Your task to perform on an android device: Check the news Image 0: 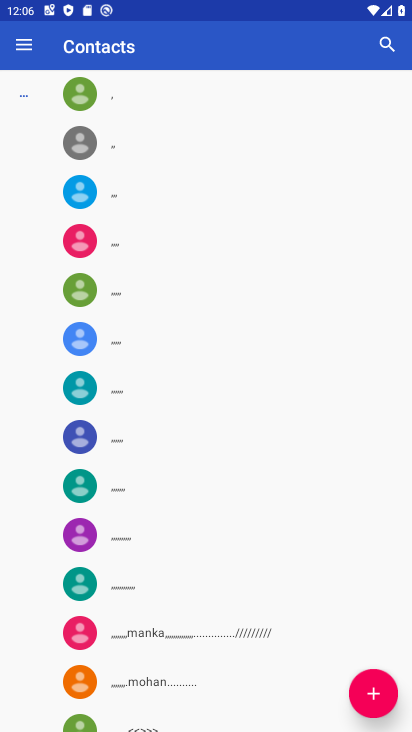
Step 0: press home button
Your task to perform on an android device: Check the news Image 1: 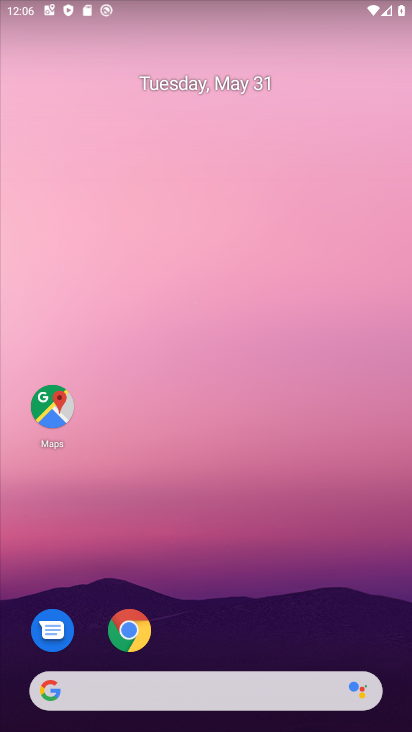
Step 1: click (54, 698)
Your task to perform on an android device: Check the news Image 2: 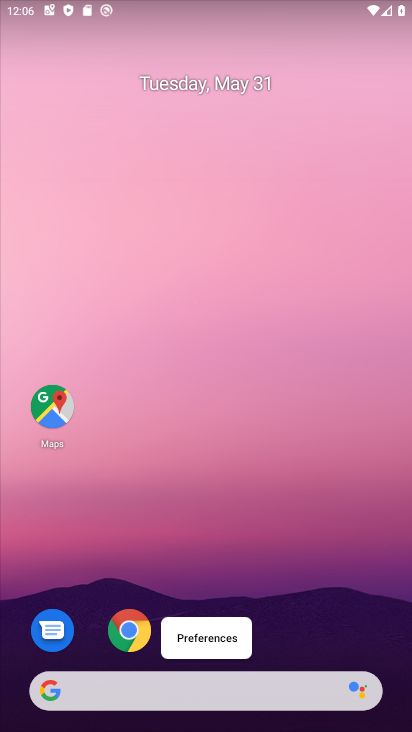
Step 2: click (54, 691)
Your task to perform on an android device: Check the news Image 3: 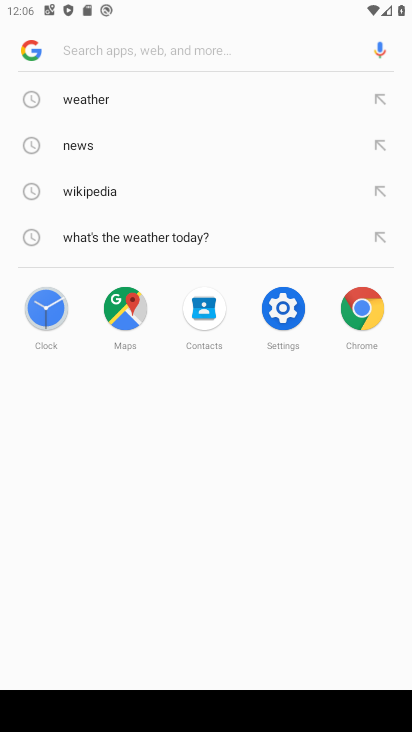
Step 3: click (81, 133)
Your task to perform on an android device: Check the news Image 4: 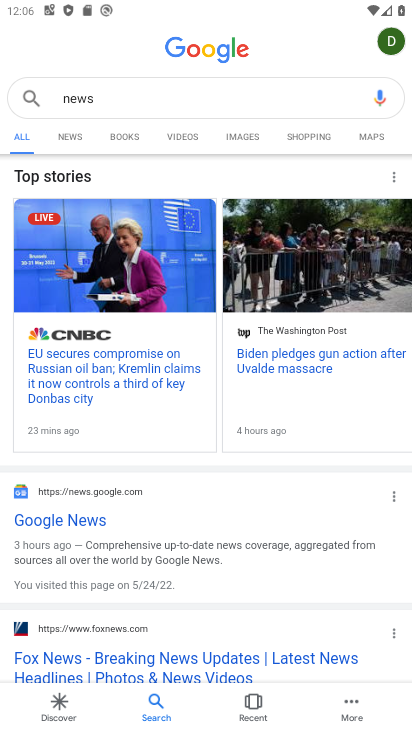
Step 4: click (72, 134)
Your task to perform on an android device: Check the news Image 5: 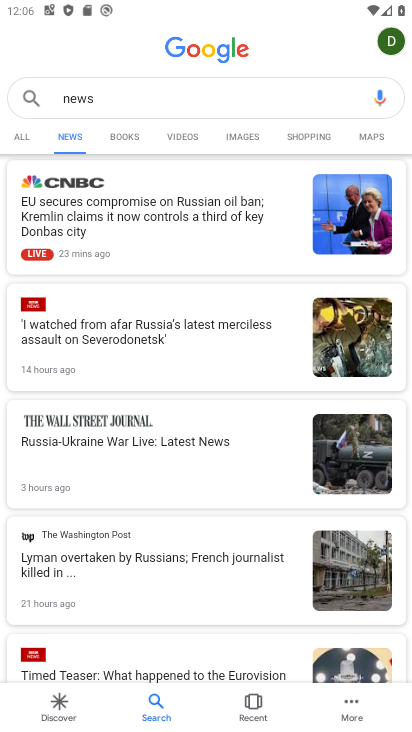
Step 5: task complete